Your task to perform on an android device: set default search engine in the chrome app Image 0: 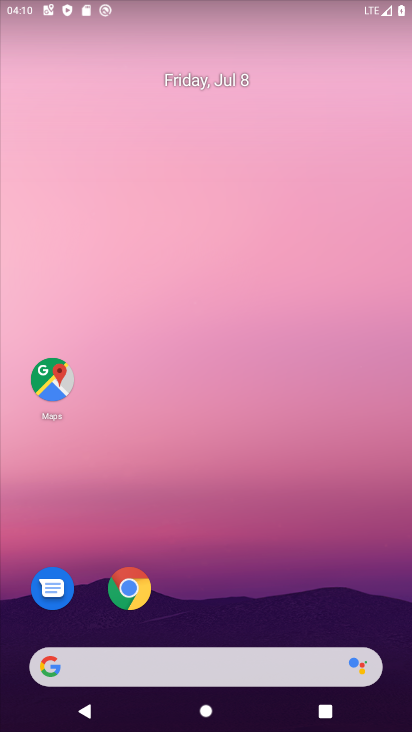
Step 0: click (127, 590)
Your task to perform on an android device: set default search engine in the chrome app Image 1: 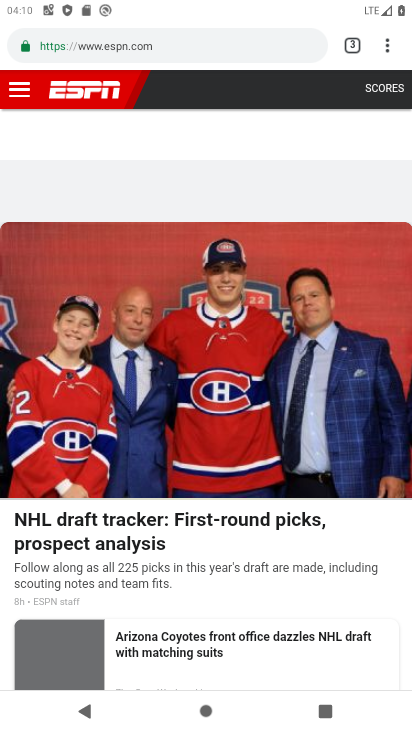
Step 1: click (391, 49)
Your task to perform on an android device: set default search engine in the chrome app Image 2: 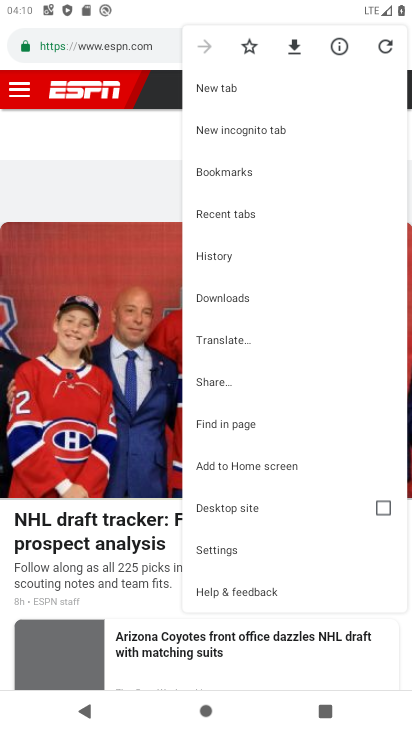
Step 2: click (228, 546)
Your task to perform on an android device: set default search engine in the chrome app Image 3: 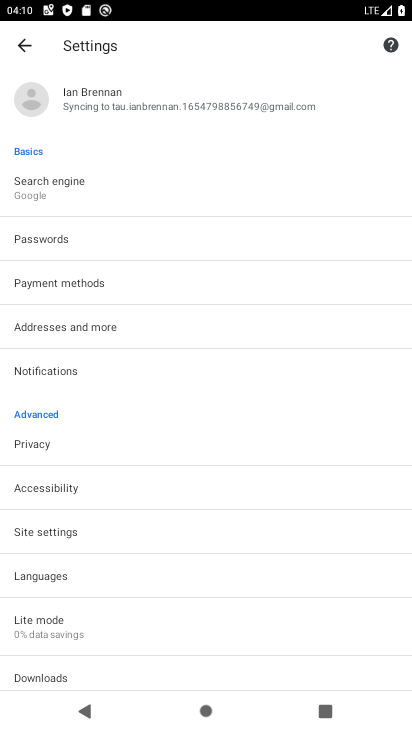
Step 3: click (43, 196)
Your task to perform on an android device: set default search engine in the chrome app Image 4: 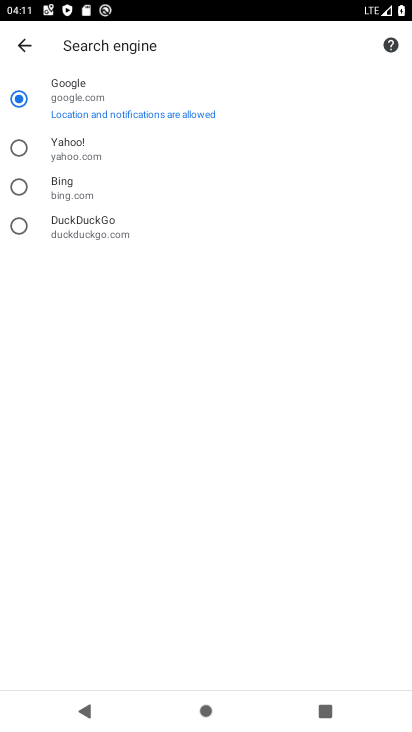
Step 4: click (18, 148)
Your task to perform on an android device: set default search engine in the chrome app Image 5: 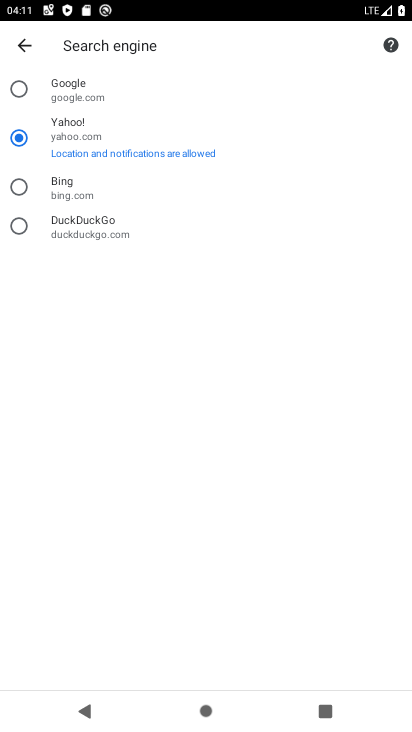
Step 5: task complete